Your task to perform on an android device: check data usage Image 0: 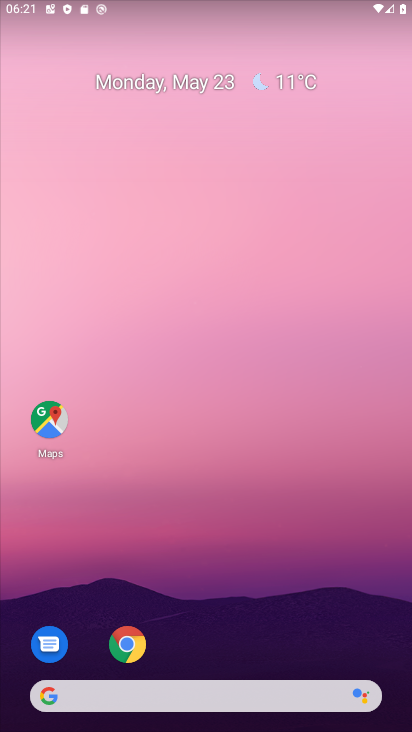
Step 0: click (186, 226)
Your task to perform on an android device: check data usage Image 1: 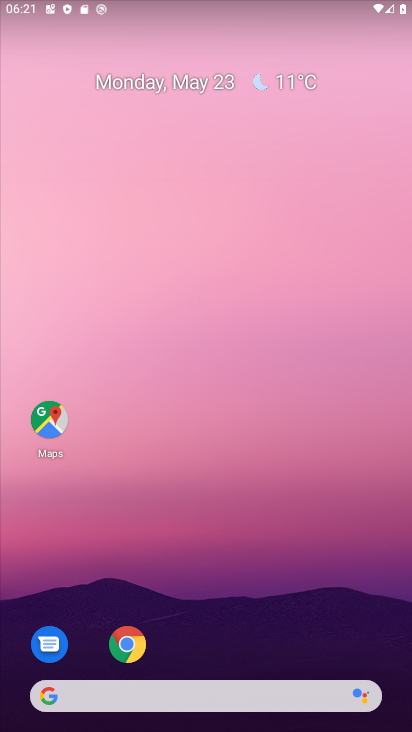
Step 1: click (184, 174)
Your task to perform on an android device: check data usage Image 2: 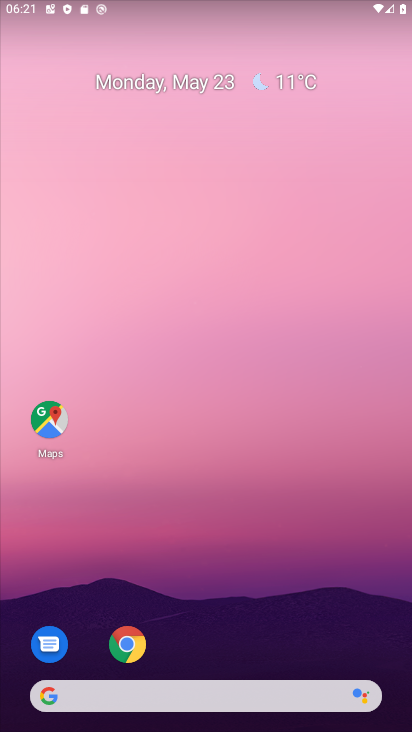
Step 2: drag from (200, 649) to (166, 193)
Your task to perform on an android device: check data usage Image 3: 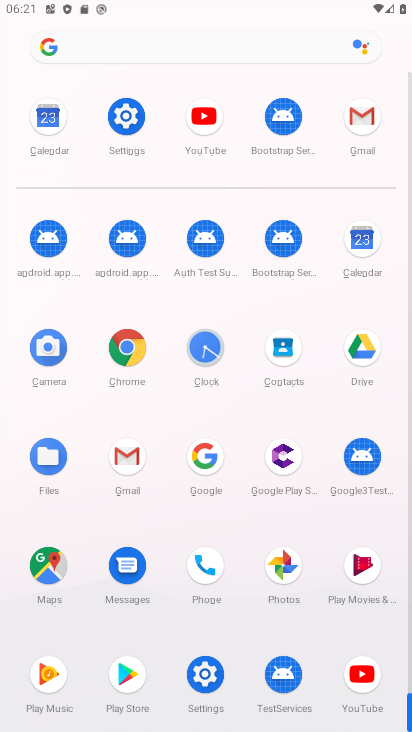
Step 3: click (129, 121)
Your task to perform on an android device: check data usage Image 4: 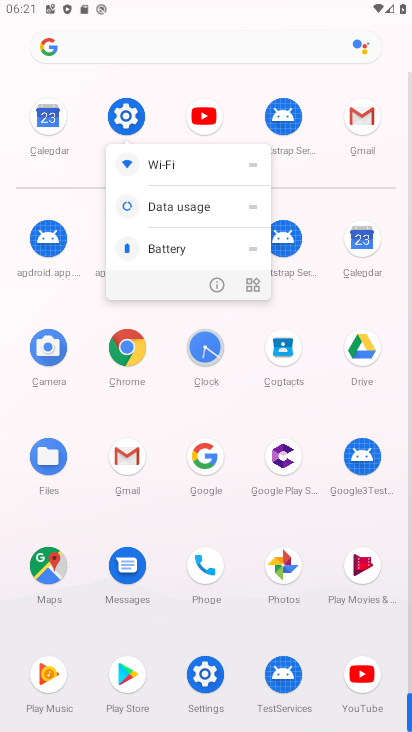
Step 4: click (128, 114)
Your task to perform on an android device: check data usage Image 5: 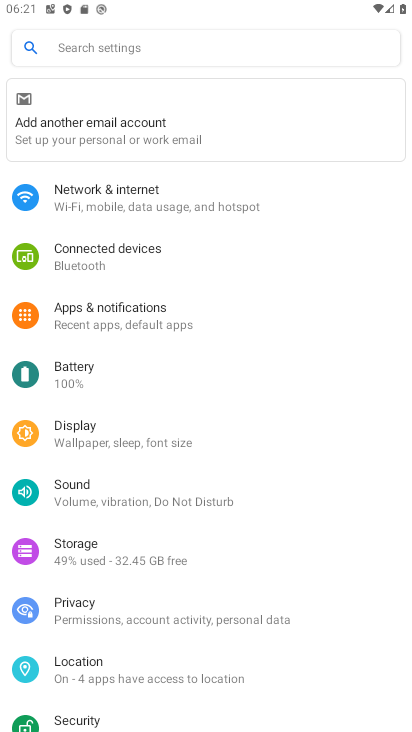
Step 5: click (91, 201)
Your task to perform on an android device: check data usage Image 6: 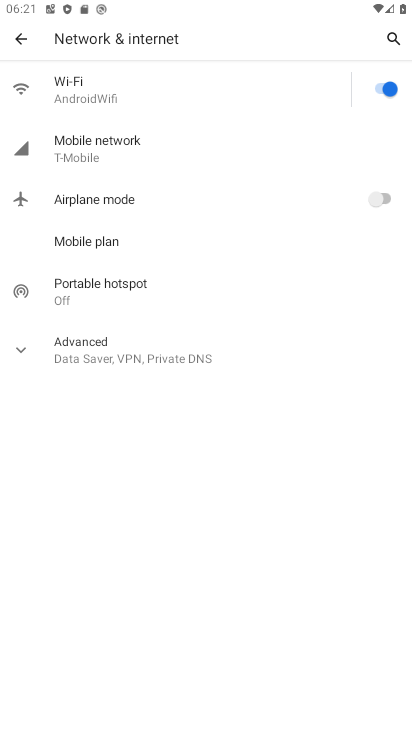
Step 6: click (103, 157)
Your task to perform on an android device: check data usage Image 7: 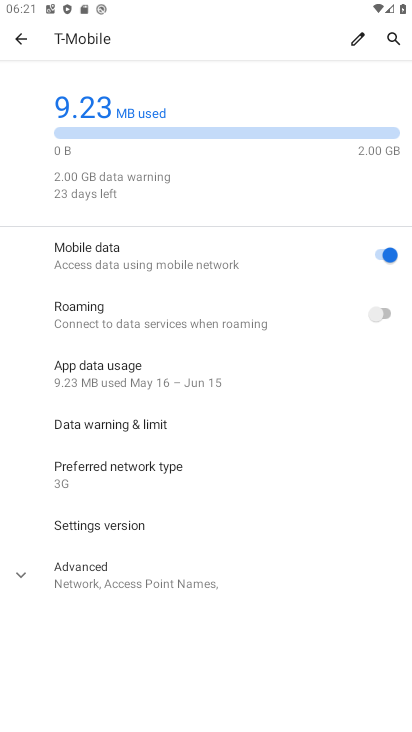
Step 7: task complete